Your task to perform on an android device: Is it going to rain tomorrow? Image 0: 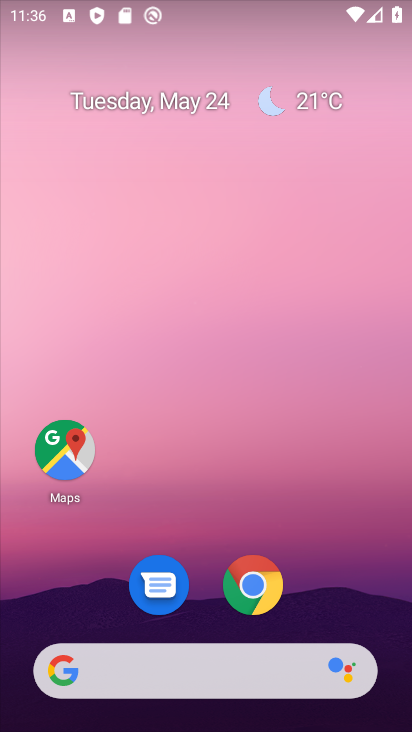
Step 0: click (308, 99)
Your task to perform on an android device: Is it going to rain tomorrow? Image 1: 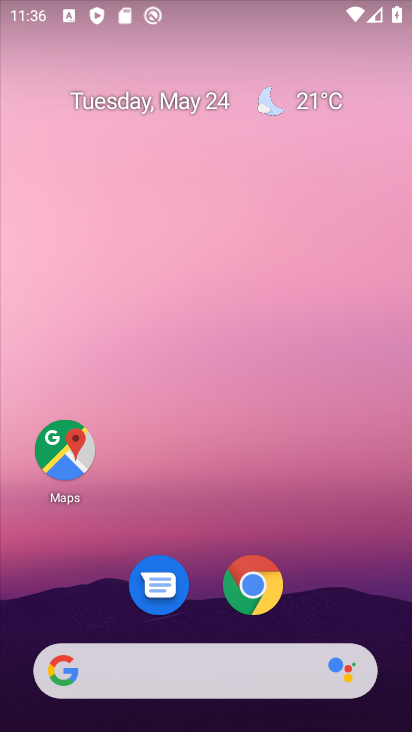
Step 1: click (298, 101)
Your task to perform on an android device: Is it going to rain tomorrow? Image 2: 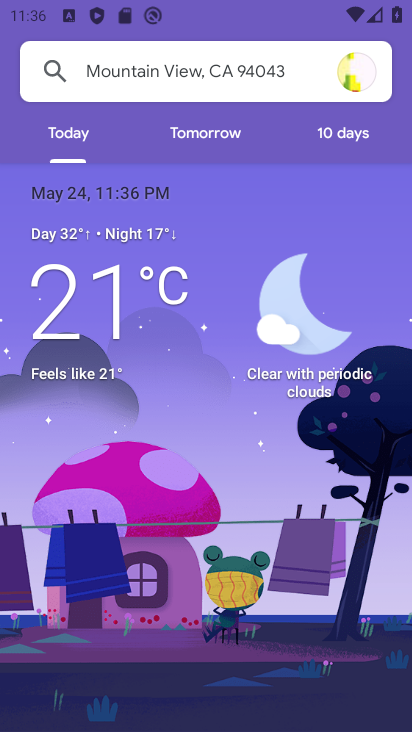
Step 2: click (196, 136)
Your task to perform on an android device: Is it going to rain tomorrow? Image 3: 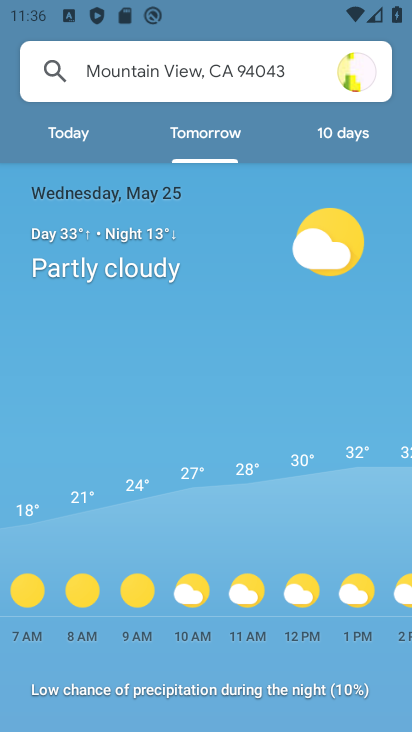
Step 3: task complete